Your task to perform on an android device: turn off notifications in google photos Image 0: 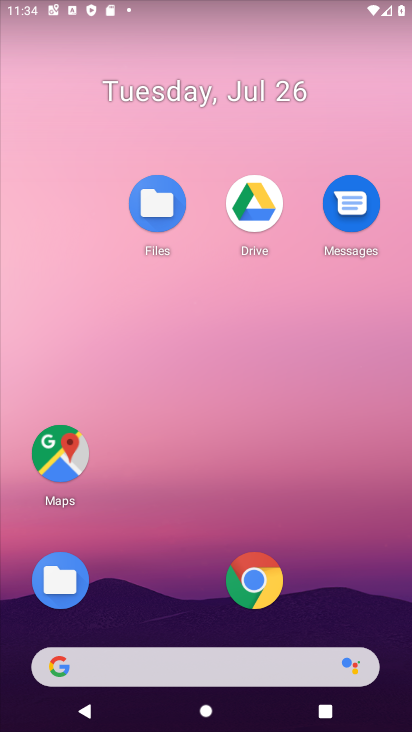
Step 0: click (198, 633)
Your task to perform on an android device: turn off notifications in google photos Image 1: 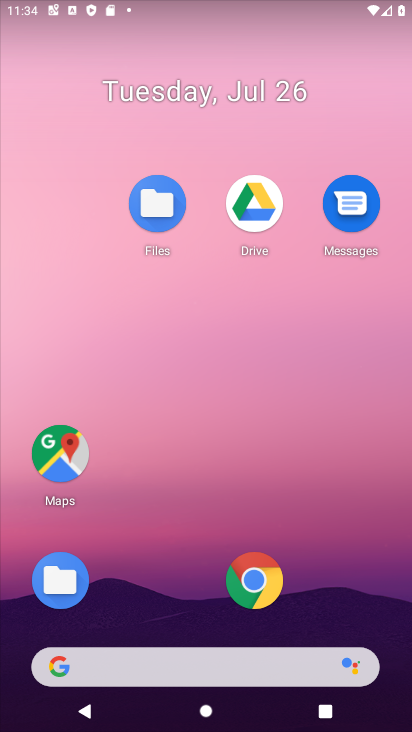
Step 1: drag from (198, 633) to (262, 157)
Your task to perform on an android device: turn off notifications in google photos Image 2: 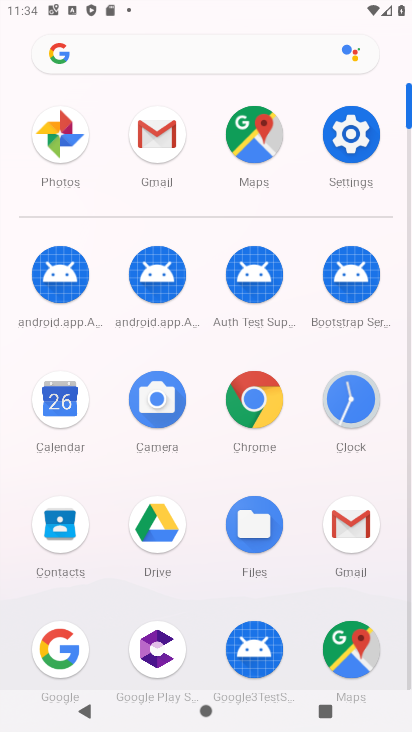
Step 2: click (373, 152)
Your task to perform on an android device: turn off notifications in google photos Image 3: 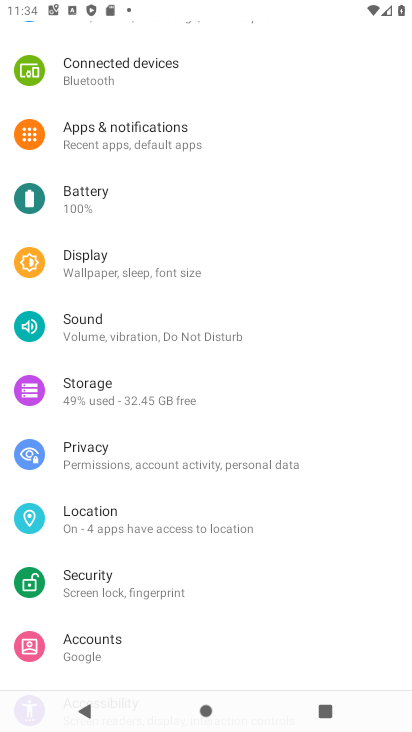
Step 3: click (182, 149)
Your task to perform on an android device: turn off notifications in google photos Image 4: 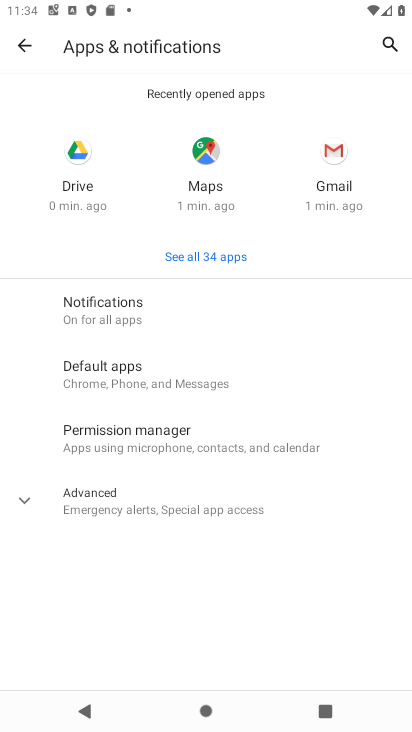
Step 4: click (207, 253)
Your task to perform on an android device: turn off notifications in google photos Image 5: 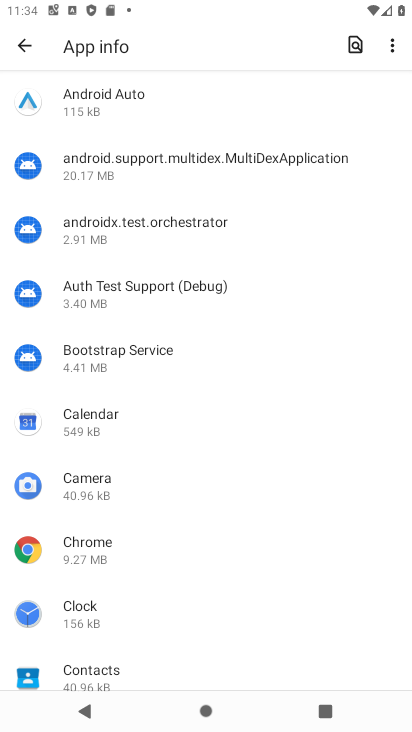
Step 5: drag from (105, 608) to (202, 201)
Your task to perform on an android device: turn off notifications in google photos Image 6: 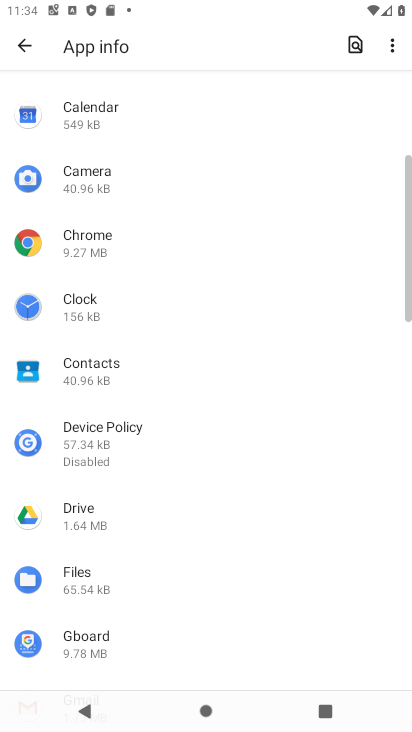
Step 6: drag from (128, 598) to (244, 142)
Your task to perform on an android device: turn off notifications in google photos Image 7: 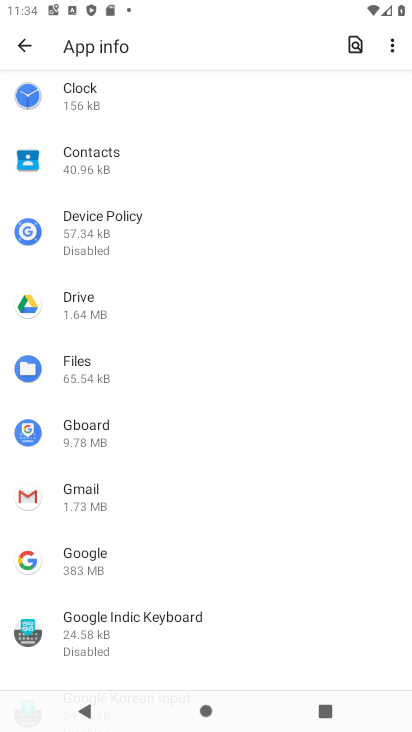
Step 7: drag from (154, 572) to (265, 190)
Your task to perform on an android device: turn off notifications in google photos Image 8: 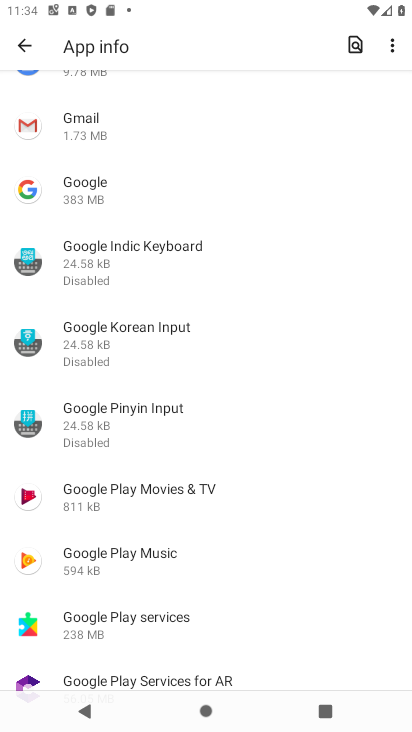
Step 8: drag from (91, 567) to (147, 242)
Your task to perform on an android device: turn off notifications in google photos Image 9: 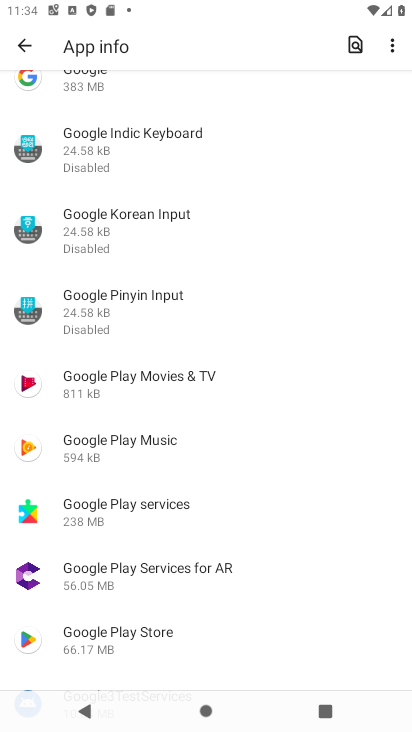
Step 9: drag from (157, 658) to (266, 174)
Your task to perform on an android device: turn off notifications in google photos Image 10: 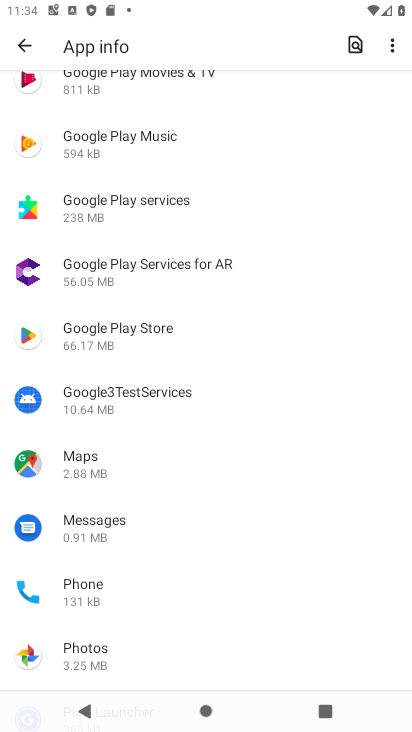
Step 10: click (97, 649)
Your task to perform on an android device: turn off notifications in google photos Image 11: 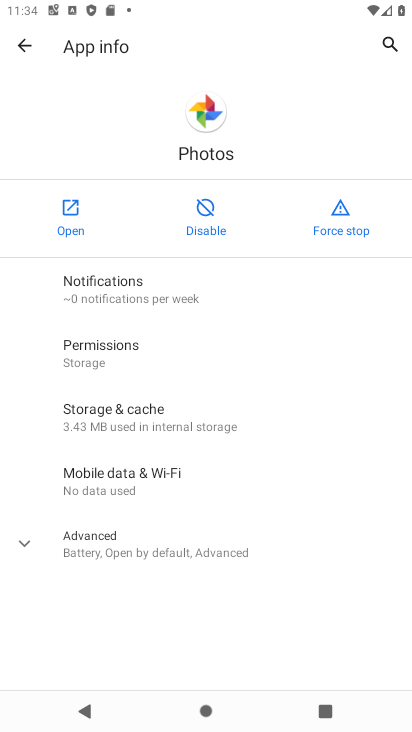
Step 11: click (223, 268)
Your task to perform on an android device: turn off notifications in google photos Image 12: 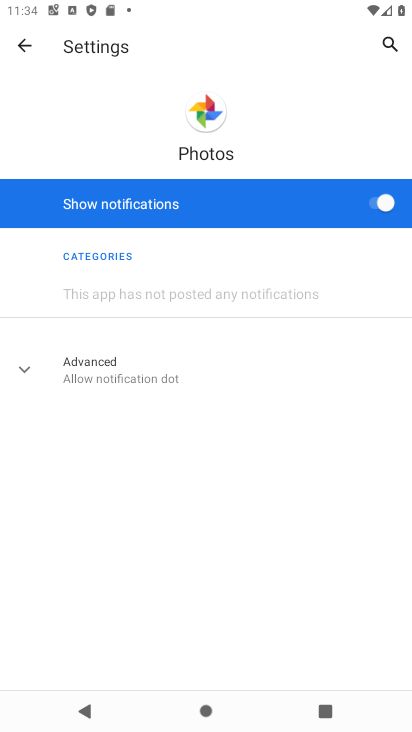
Step 12: click (386, 200)
Your task to perform on an android device: turn off notifications in google photos Image 13: 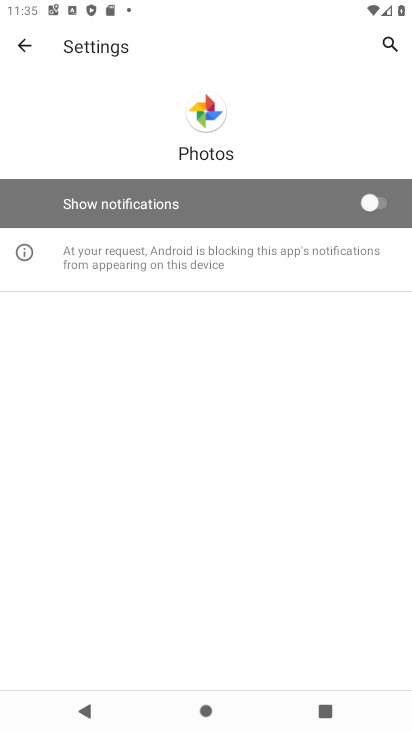
Step 13: task complete